Your task to perform on an android device: Do I have any events tomorrow? Image 0: 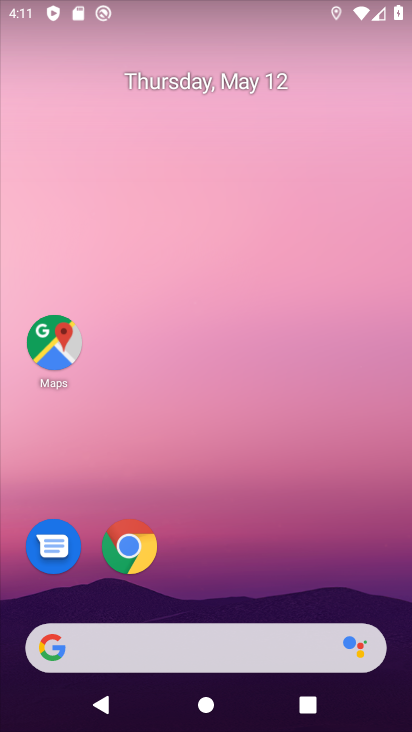
Step 0: drag from (257, 498) to (96, 16)
Your task to perform on an android device: Do I have any events tomorrow? Image 1: 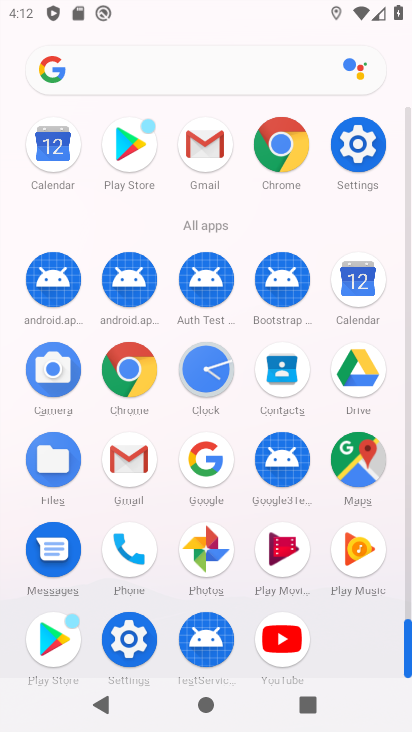
Step 1: drag from (19, 409) to (26, 239)
Your task to perform on an android device: Do I have any events tomorrow? Image 2: 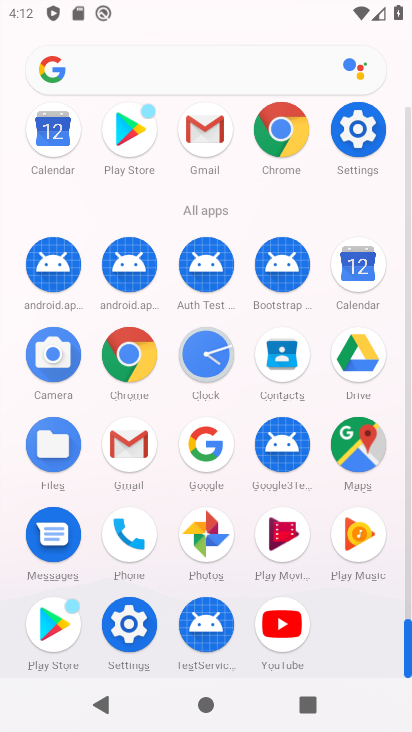
Step 2: drag from (5, 427) to (7, 210)
Your task to perform on an android device: Do I have any events tomorrow? Image 3: 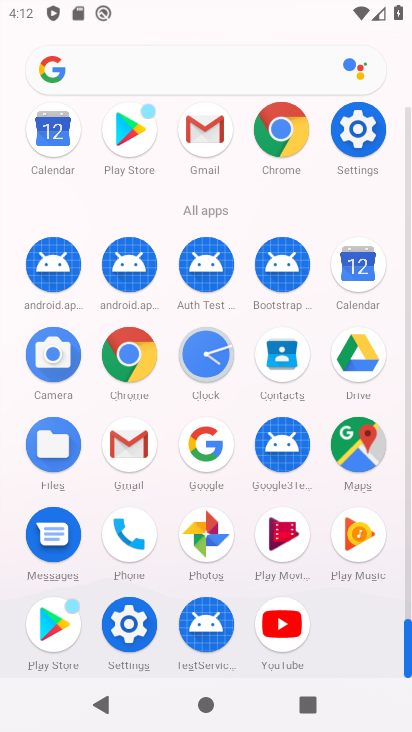
Step 3: drag from (14, 523) to (1, 239)
Your task to perform on an android device: Do I have any events tomorrow? Image 4: 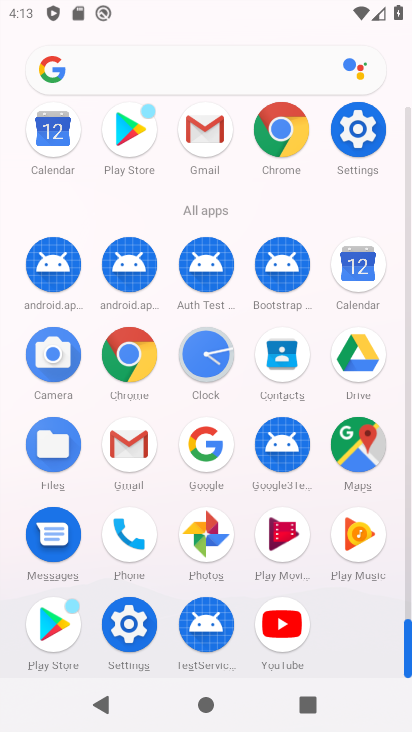
Step 4: click (358, 260)
Your task to perform on an android device: Do I have any events tomorrow? Image 5: 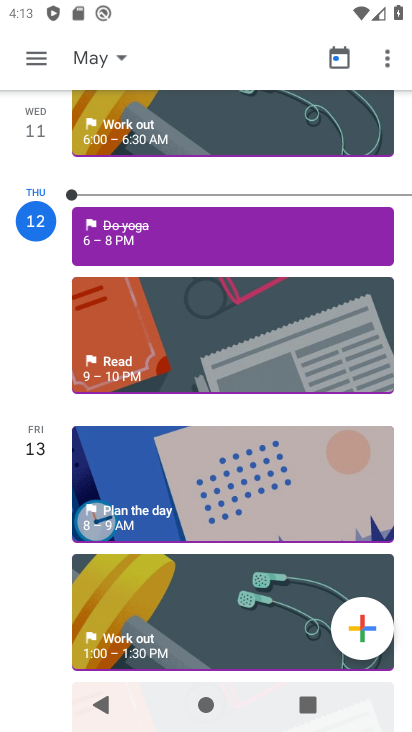
Step 5: task complete